Your task to perform on an android device: find photos in the google photos app Image 0: 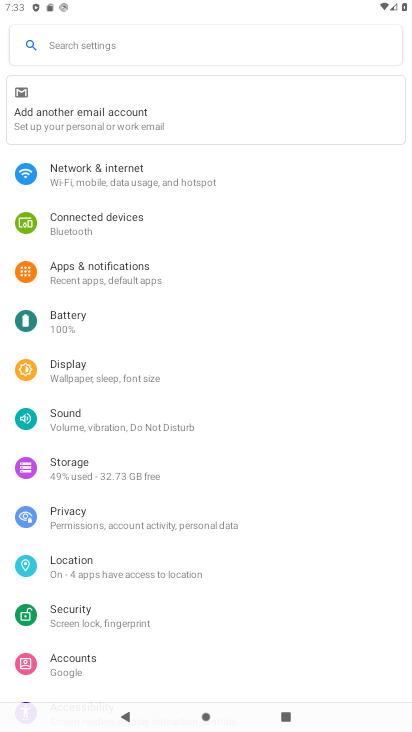
Step 0: press home button
Your task to perform on an android device: find photos in the google photos app Image 1: 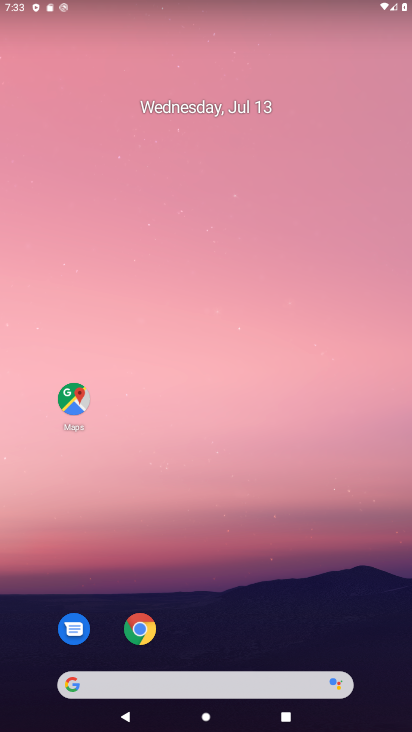
Step 1: drag from (318, 571) to (66, 12)
Your task to perform on an android device: find photos in the google photos app Image 2: 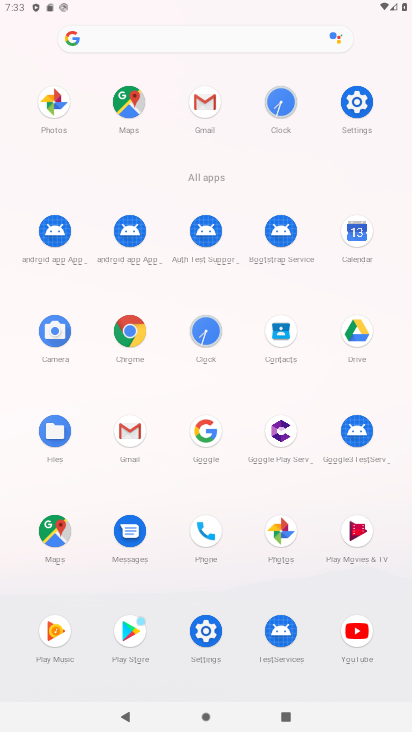
Step 2: click (282, 540)
Your task to perform on an android device: find photos in the google photos app Image 3: 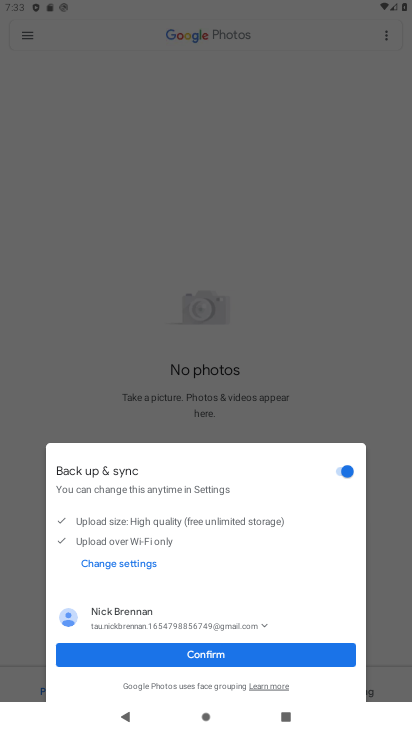
Step 3: click (206, 661)
Your task to perform on an android device: find photos in the google photos app Image 4: 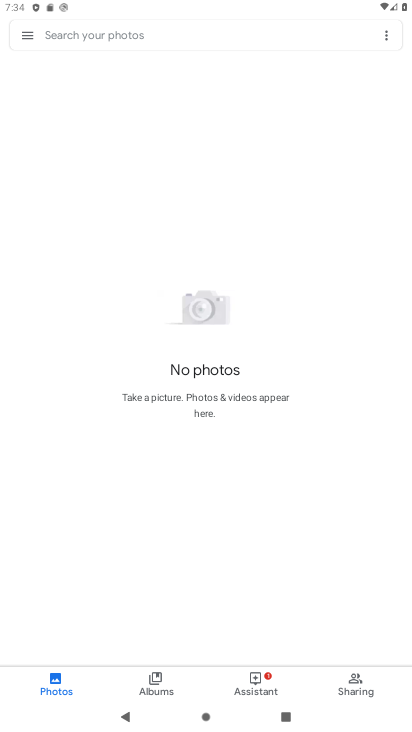
Step 4: task complete